Your task to perform on an android device: open device folders in google photos Image 0: 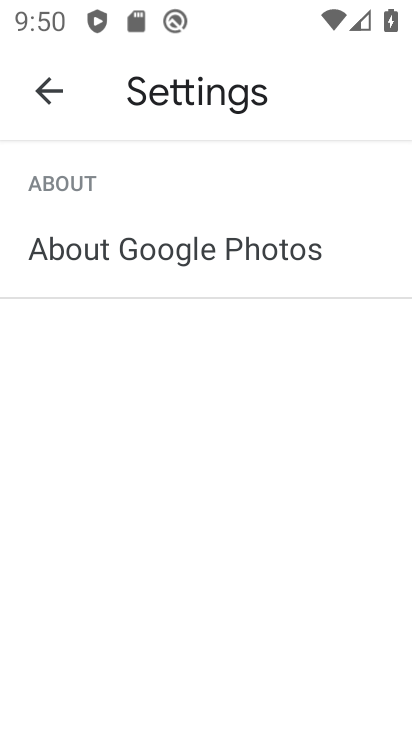
Step 0: press home button
Your task to perform on an android device: open device folders in google photos Image 1: 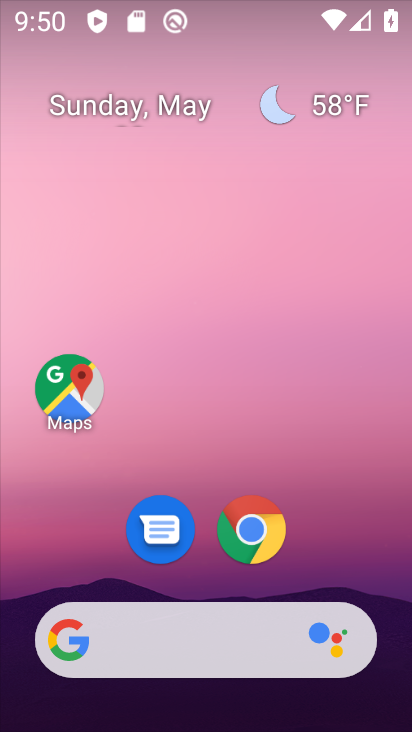
Step 1: drag from (206, 577) to (240, 0)
Your task to perform on an android device: open device folders in google photos Image 2: 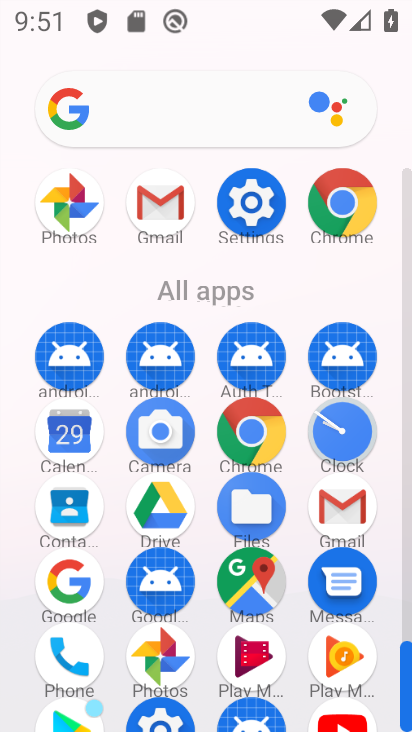
Step 2: click (157, 649)
Your task to perform on an android device: open device folders in google photos Image 3: 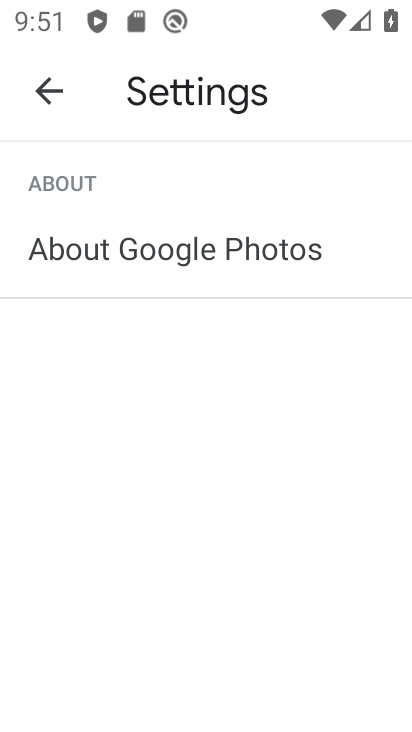
Step 3: click (54, 97)
Your task to perform on an android device: open device folders in google photos Image 4: 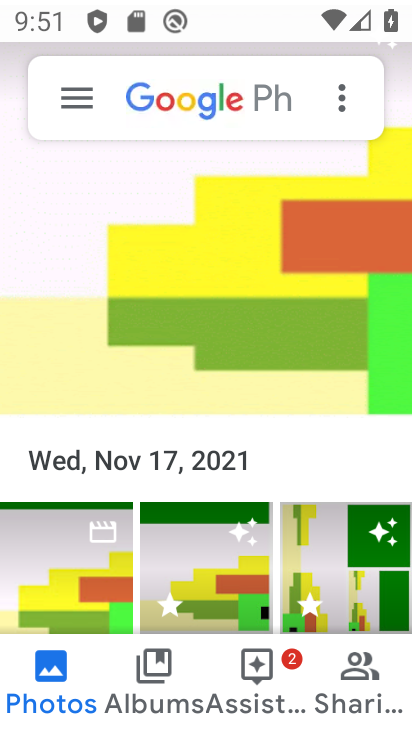
Step 4: click (54, 97)
Your task to perform on an android device: open device folders in google photos Image 5: 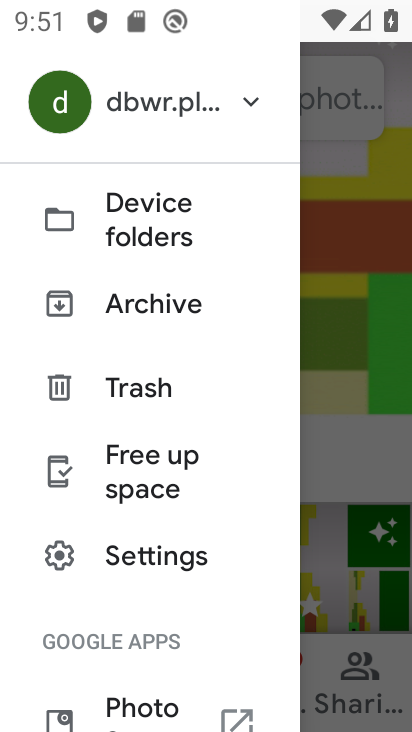
Step 5: click (177, 226)
Your task to perform on an android device: open device folders in google photos Image 6: 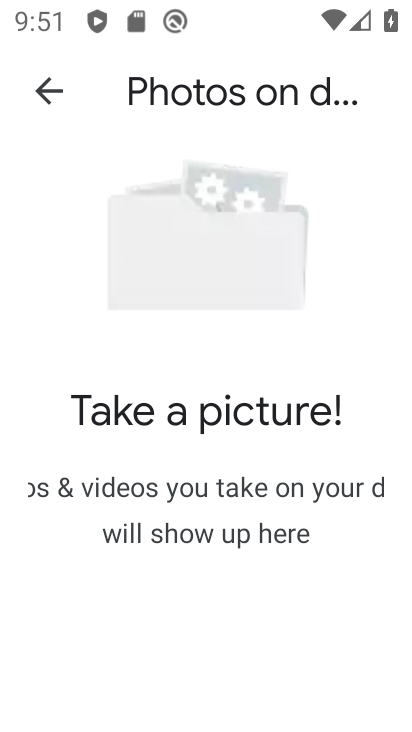
Step 6: task complete